Your task to perform on an android device: stop showing notifications on the lock screen Image 0: 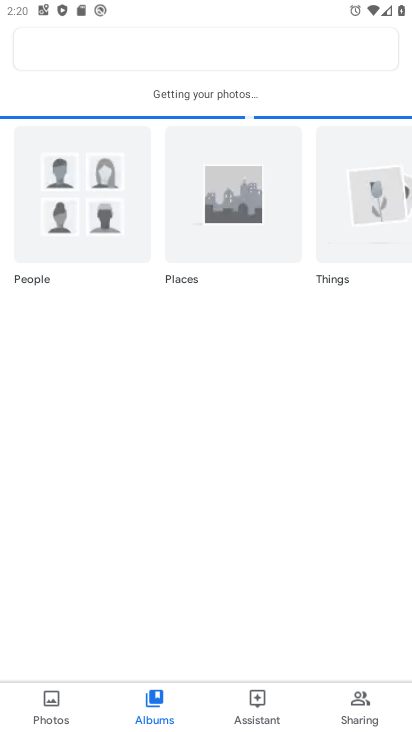
Step 0: drag from (250, 558) to (253, 227)
Your task to perform on an android device: stop showing notifications on the lock screen Image 1: 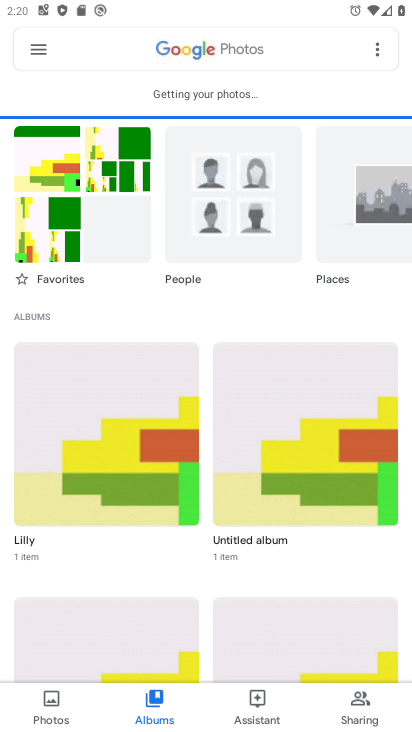
Step 1: press home button
Your task to perform on an android device: stop showing notifications on the lock screen Image 2: 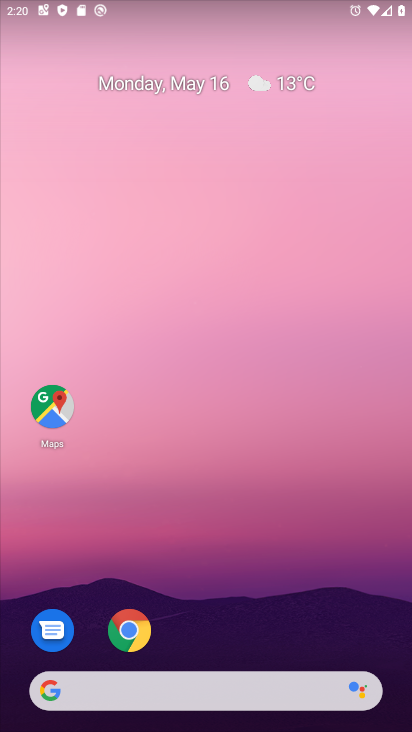
Step 2: drag from (284, 630) to (284, 175)
Your task to perform on an android device: stop showing notifications on the lock screen Image 3: 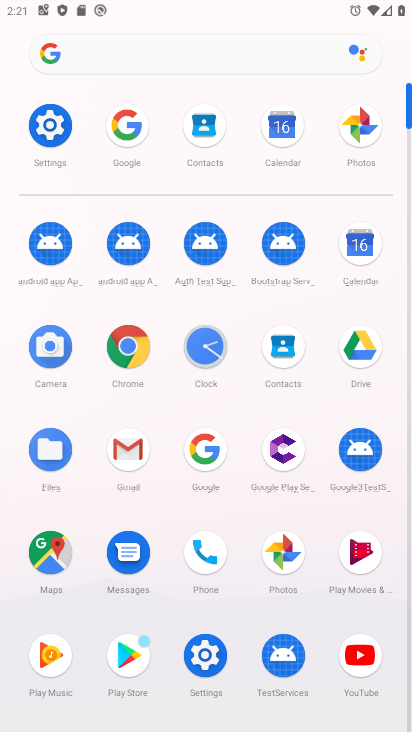
Step 3: click (47, 119)
Your task to perform on an android device: stop showing notifications on the lock screen Image 4: 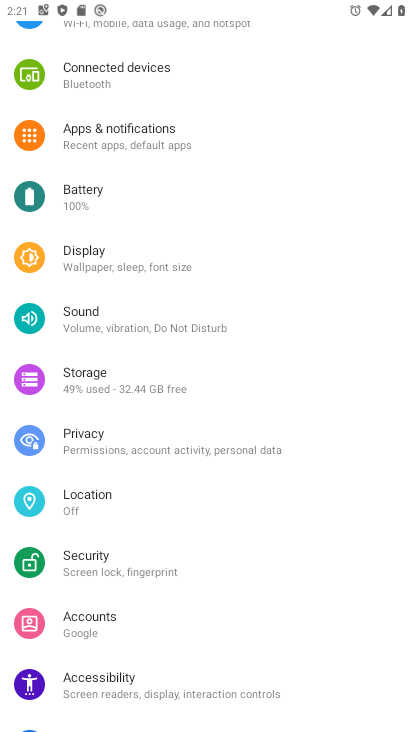
Step 4: click (124, 136)
Your task to perform on an android device: stop showing notifications on the lock screen Image 5: 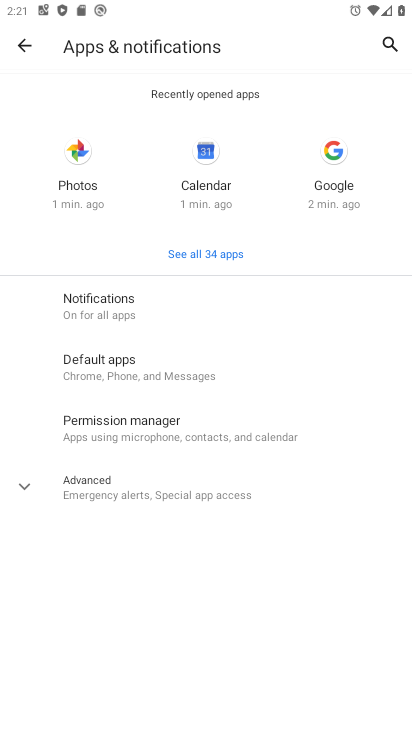
Step 5: click (88, 289)
Your task to perform on an android device: stop showing notifications on the lock screen Image 6: 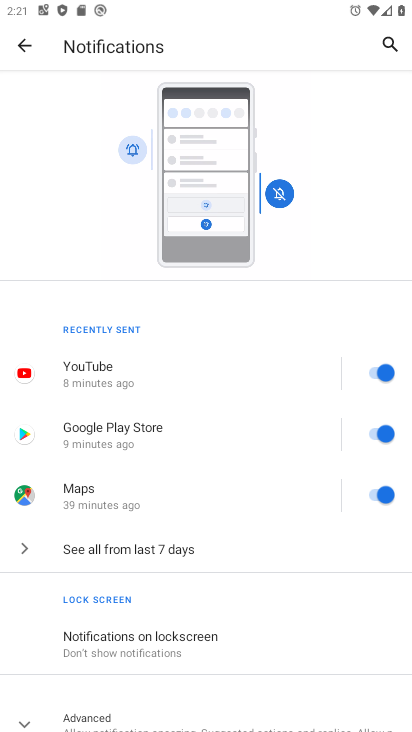
Step 6: click (125, 650)
Your task to perform on an android device: stop showing notifications on the lock screen Image 7: 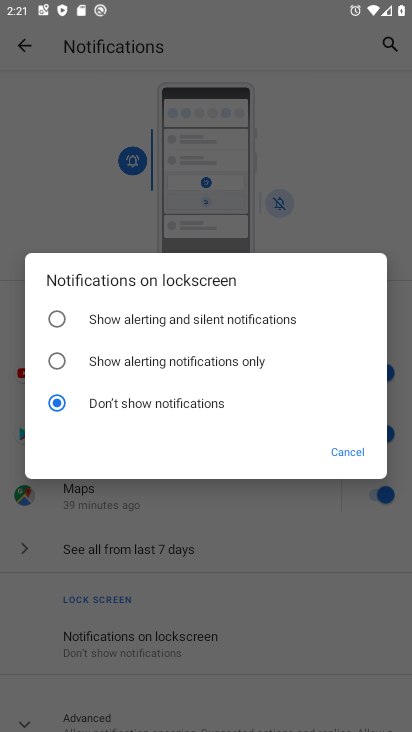
Step 7: click (196, 399)
Your task to perform on an android device: stop showing notifications on the lock screen Image 8: 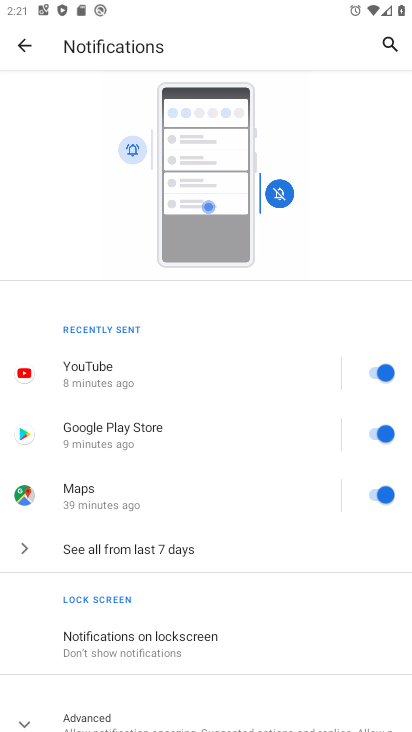
Step 8: task complete